Your task to perform on an android device: set the stopwatch Image 0: 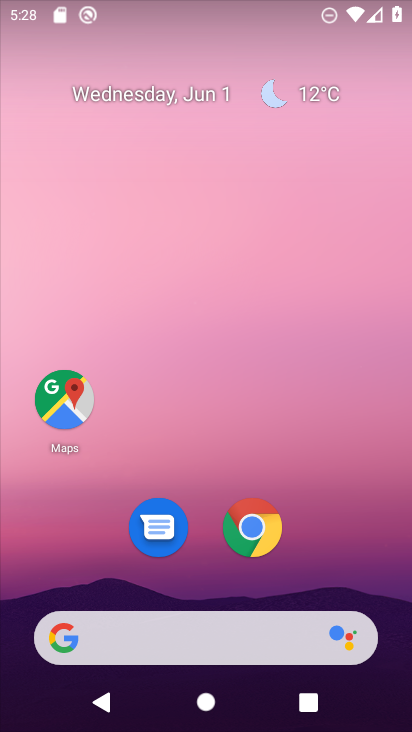
Step 0: drag from (227, 577) to (248, 41)
Your task to perform on an android device: set the stopwatch Image 1: 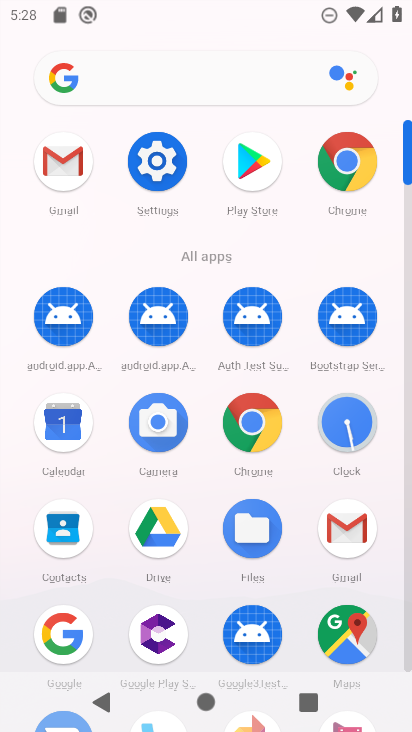
Step 1: click (349, 441)
Your task to perform on an android device: set the stopwatch Image 2: 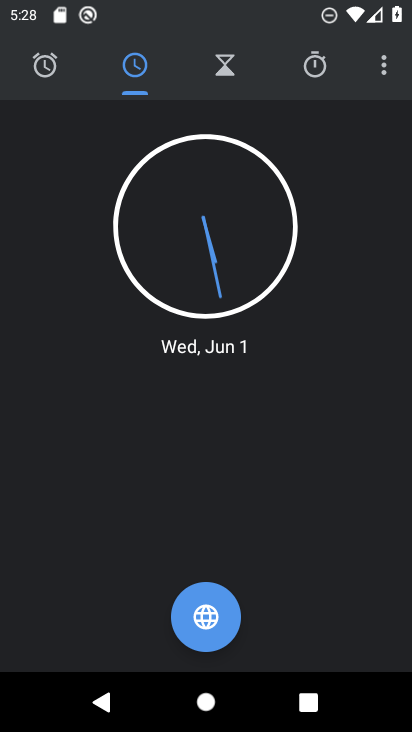
Step 2: click (341, 61)
Your task to perform on an android device: set the stopwatch Image 3: 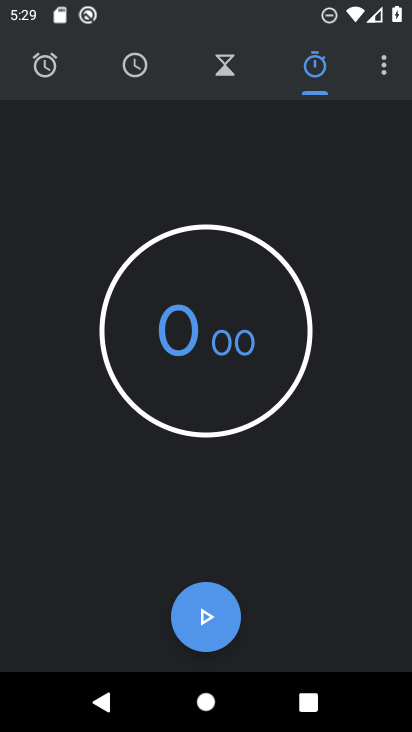
Step 3: click (182, 634)
Your task to perform on an android device: set the stopwatch Image 4: 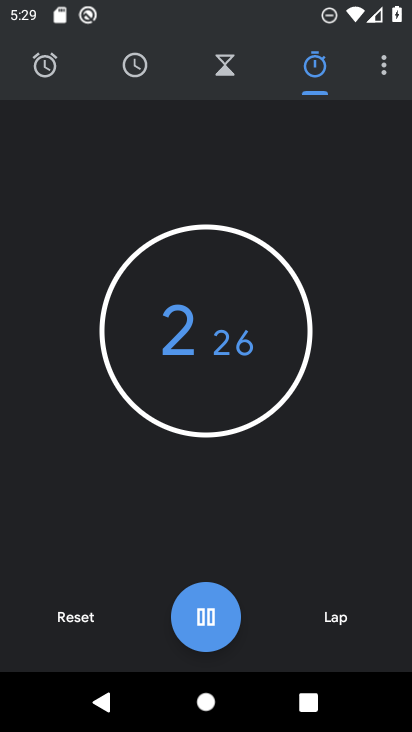
Step 4: task complete